Your task to perform on an android device: read, delete, or share a saved page in the chrome app Image 0: 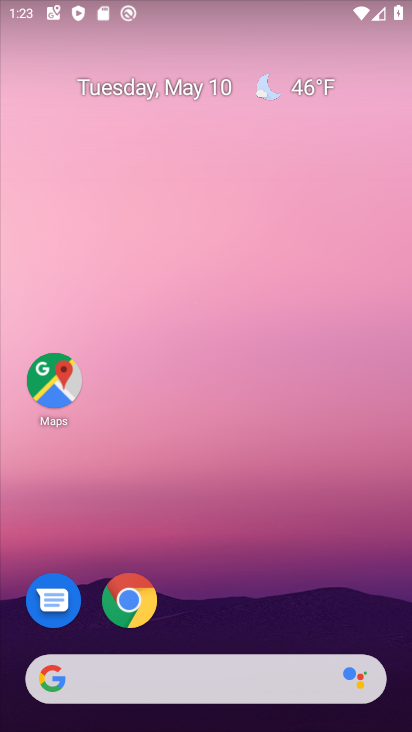
Step 0: drag from (209, 671) to (356, 179)
Your task to perform on an android device: read, delete, or share a saved page in the chrome app Image 1: 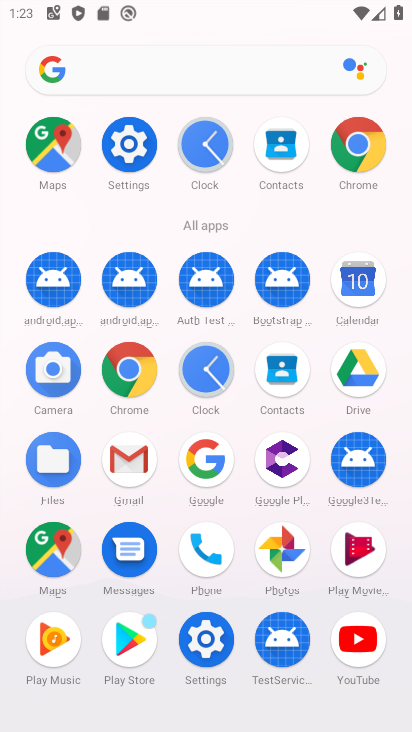
Step 1: click (352, 155)
Your task to perform on an android device: read, delete, or share a saved page in the chrome app Image 2: 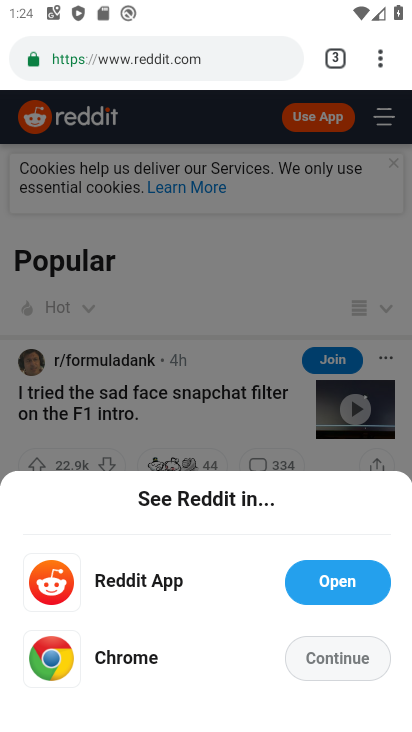
Step 2: drag from (379, 60) to (183, 381)
Your task to perform on an android device: read, delete, or share a saved page in the chrome app Image 3: 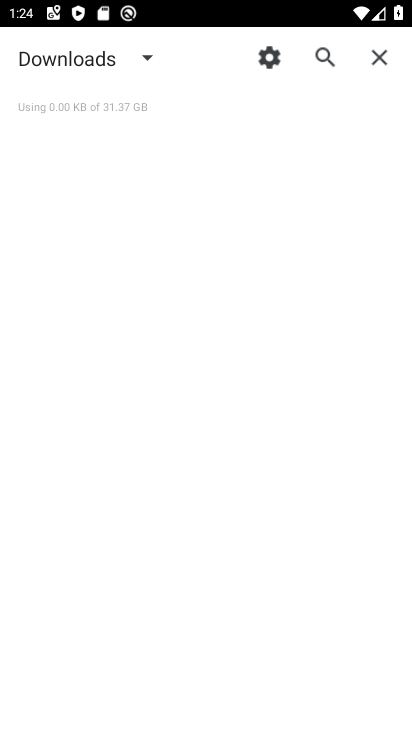
Step 3: click (113, 59)
Your task to perform on an android device: read, delete, or share a saved page in the chrome app Image 4: 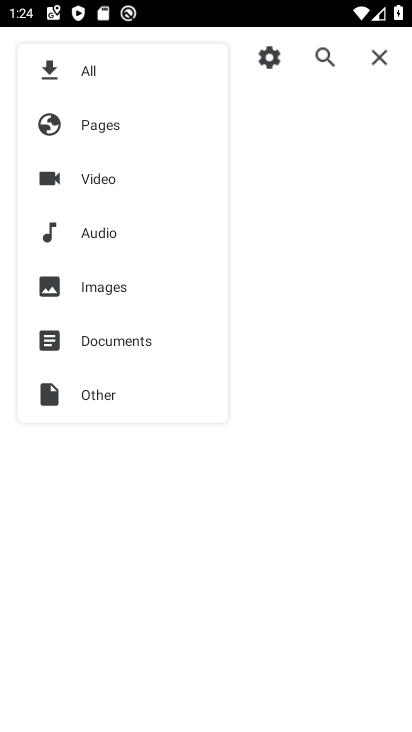
Step 4: click (98, 125)
Your task to perform on an android device: read, delete, or share a saved page in the chrome app Image 5: 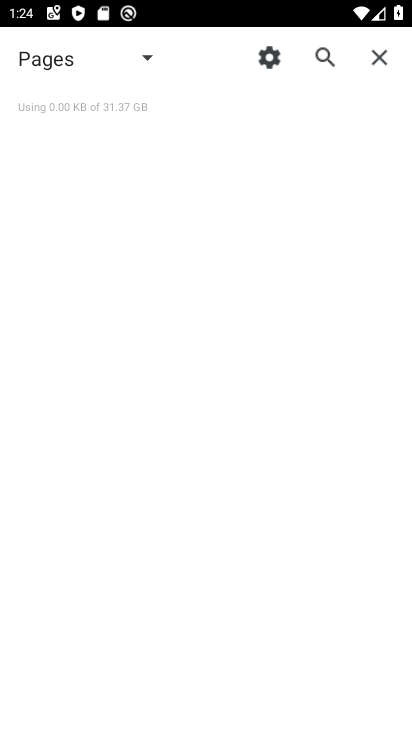
Step 5: task complete